Your task to perform on an android device: turn vacation reply on in the gmail app Image 0: 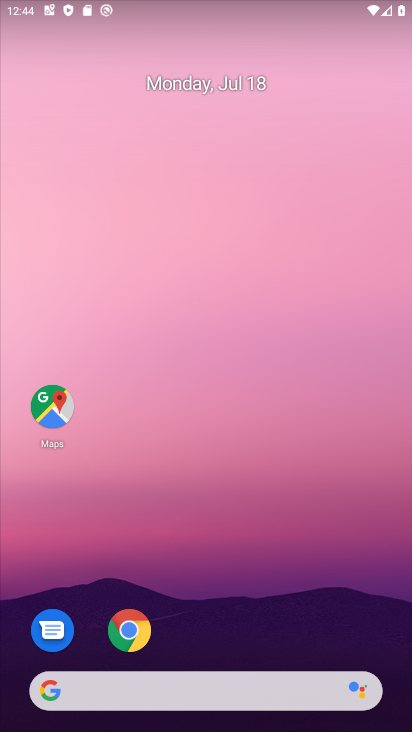
Step 0: drag from (259, 626) to (189, 91)
Your task to perform on an android device: turn vacation reply on in the gmail app Image 1: 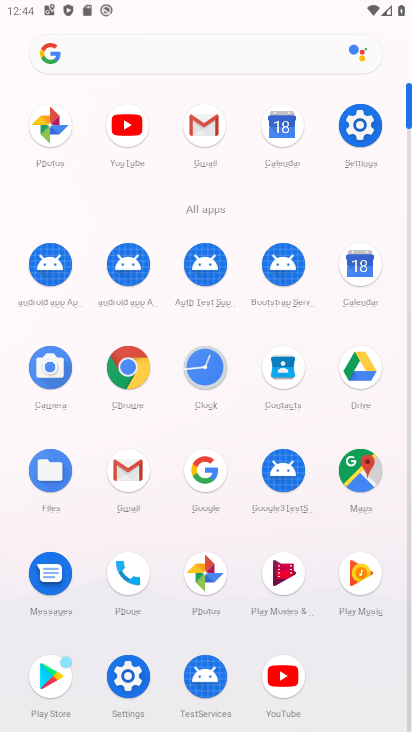
Step 1: click (190, 121)
Your task to perform on an android device: turn vacation reply on in the gmail app Image 2: 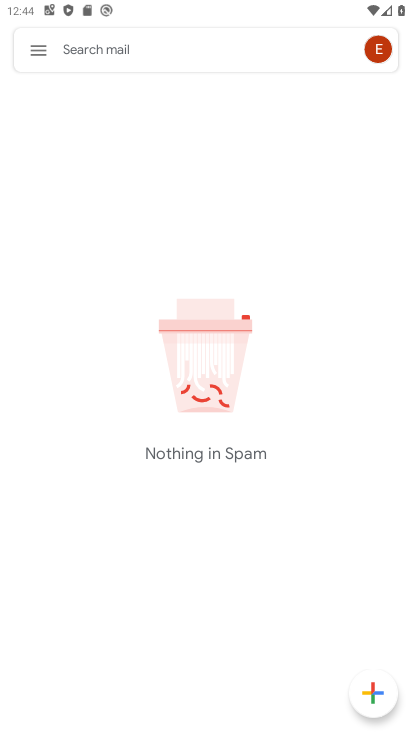
Step 2: click (40, 41)
Your task to perform on an android device: turn vacation reply on in the gmail app Image 3: 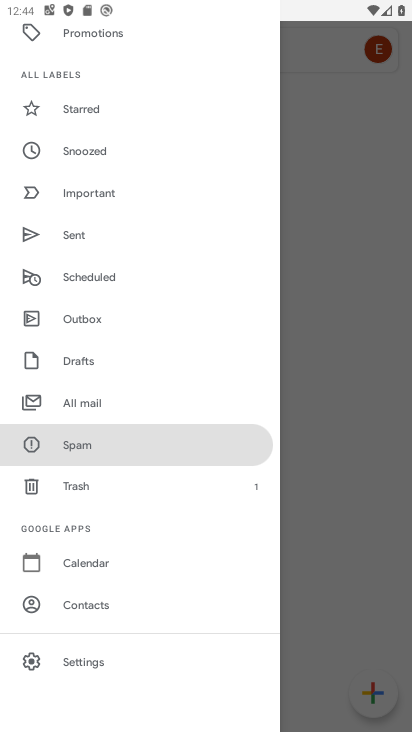
Step 3: click (120, 655)
Your task to perform on an android device: turn vacation reply on in the gmail app Image 4: 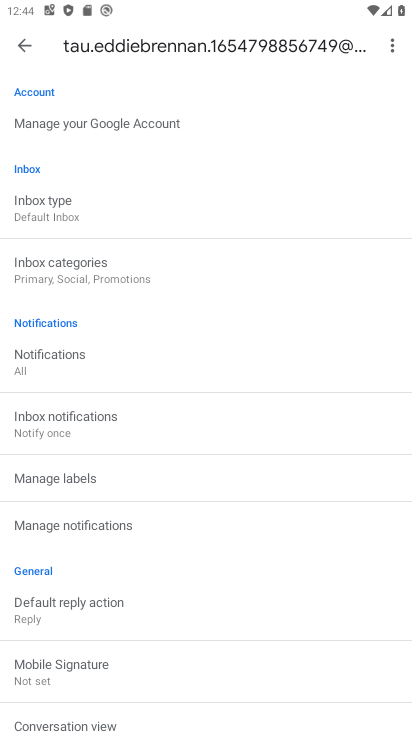
Step 4: drag from (214, 657) to (169, 154)
Your task to perform on an android device: turn vacation reply on in the gmail app Image 5: 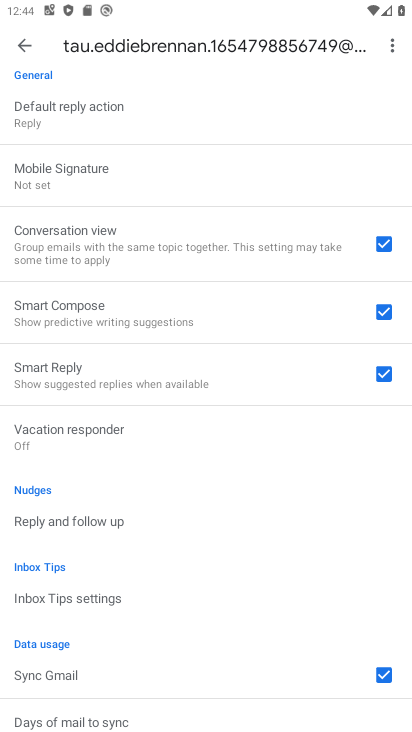
Step 5: click (210, 421)
Your task to perform on an android device: turn vacation reply on in the gmail app Image 6: 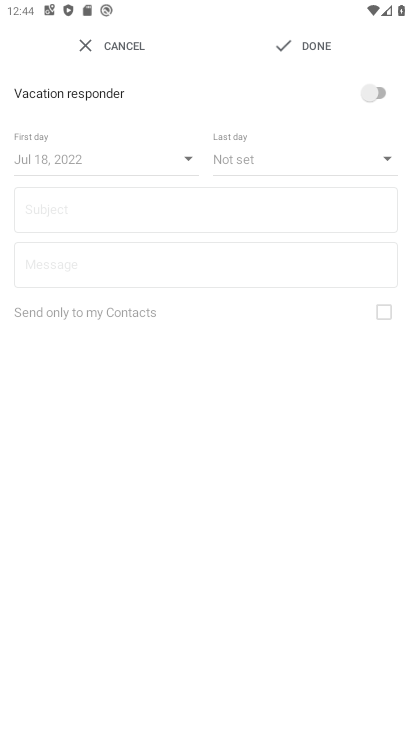
Step 6: click (378, 89)
Your task to perform on an android device: turn vacation reply on in the gmail app Image 7: 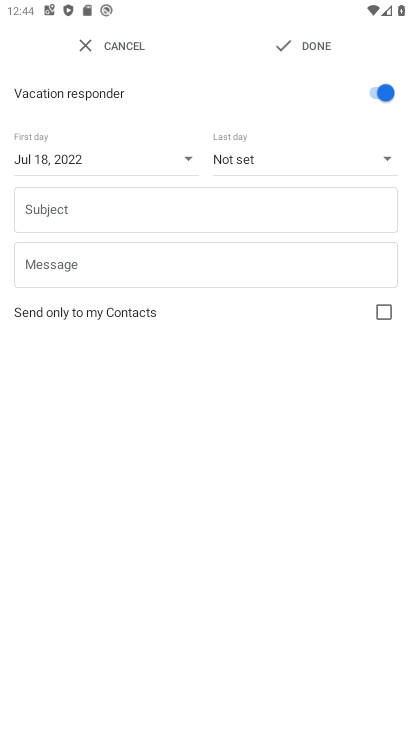
Step 7: click (277, 205)
Your task to perform on an android device: turn vacation reply on in the gmail app Image 8: 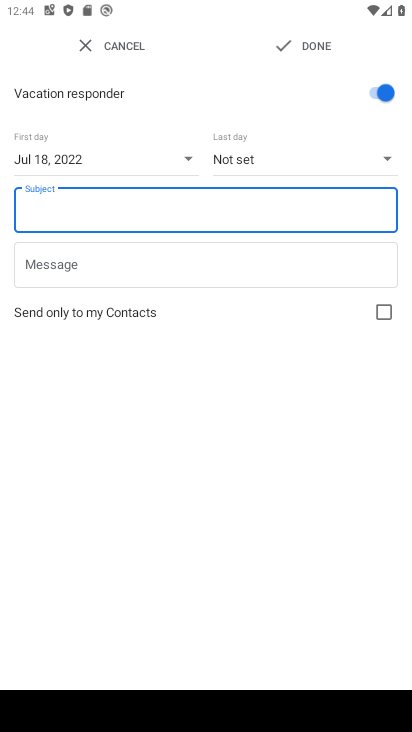
Step 8: type " jnfjnjf"
Your task to perform on an android device: turn vacation reply on in the gmail app Image 9: 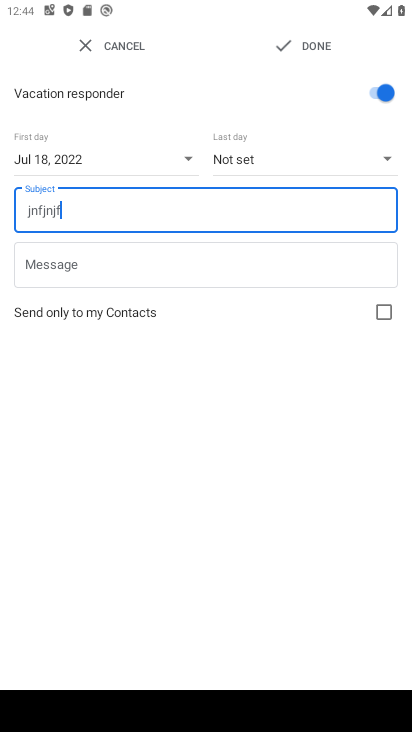
Step 9: click (329, 51)
Your task to perform on an android device: turn vacation reply on in the gmail app Image 10: 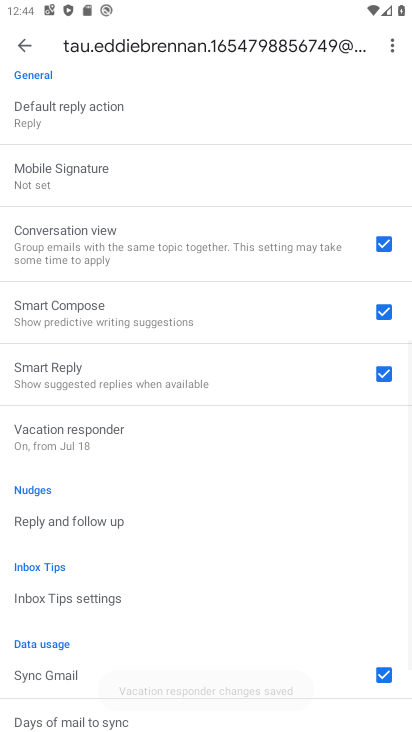
Step 10: task complete